Your task to perform on an android device: Open the web browser Image 0: 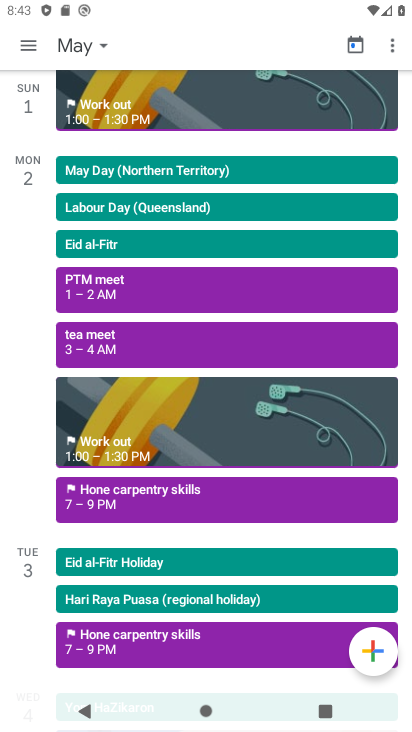
Step 0: press home button
Your task to perform on an android device: Open the web browser Image 1: 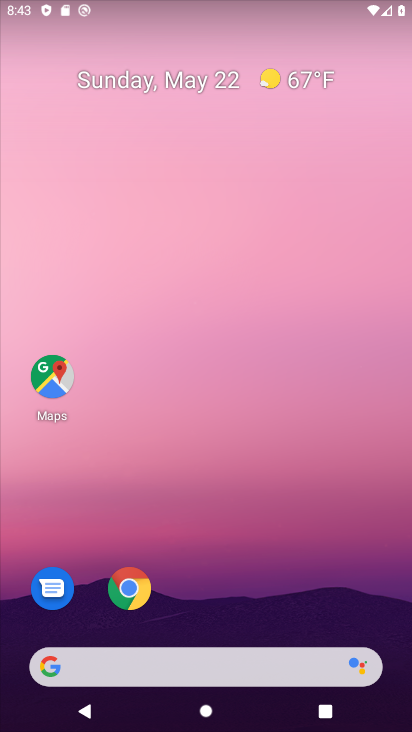
Step 1: click (127, 581)
Your task to perform on an android device: Open the web browser Image 2: 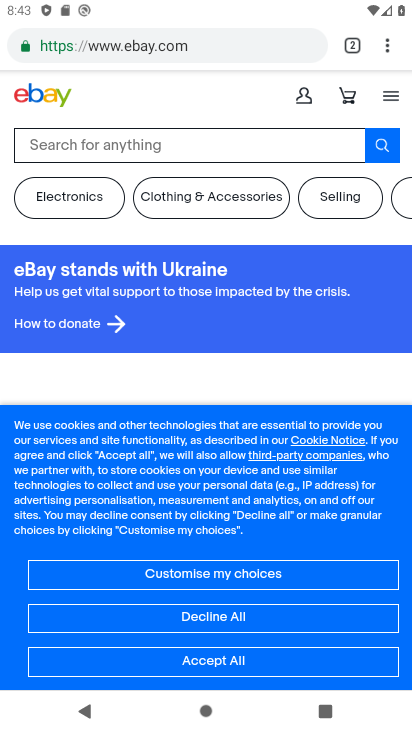
Step 2: task complete